Your task to perform on an android device: Search for a custom-made wallet on Etsy Image 0: 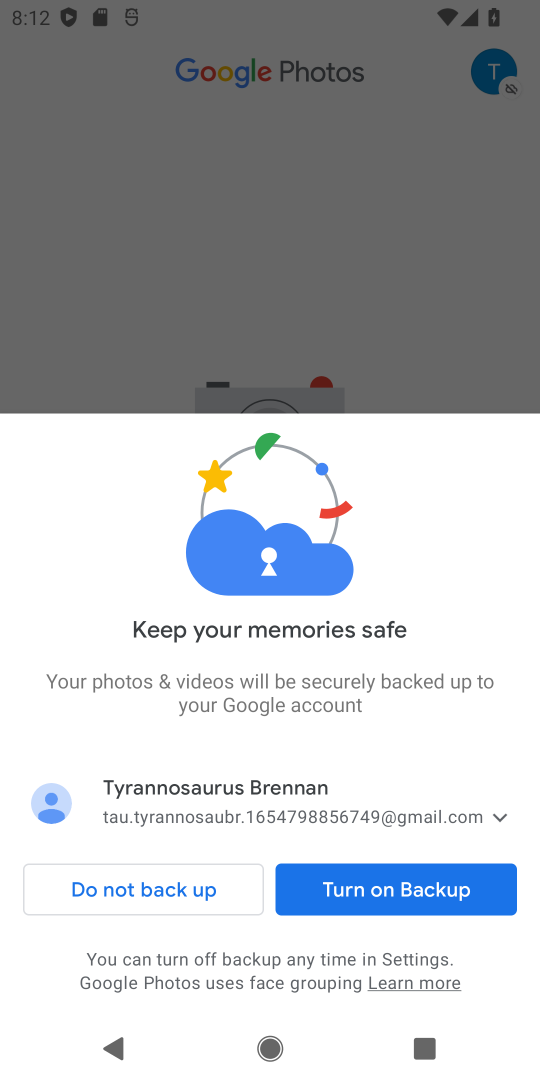
Step 0: press home button
Your task to perform on an android device: Search for a custom-made wallet on Etsy Image 1: 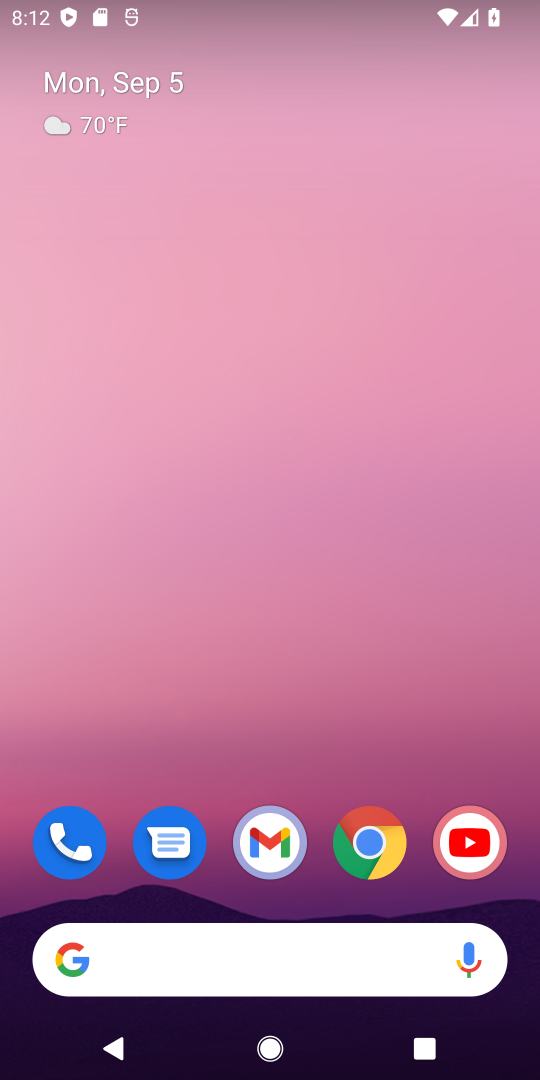
Step 1: click (368, 844)
Your task to perform on an android device: Search for a custom-made wallet on Etsy Image 2: 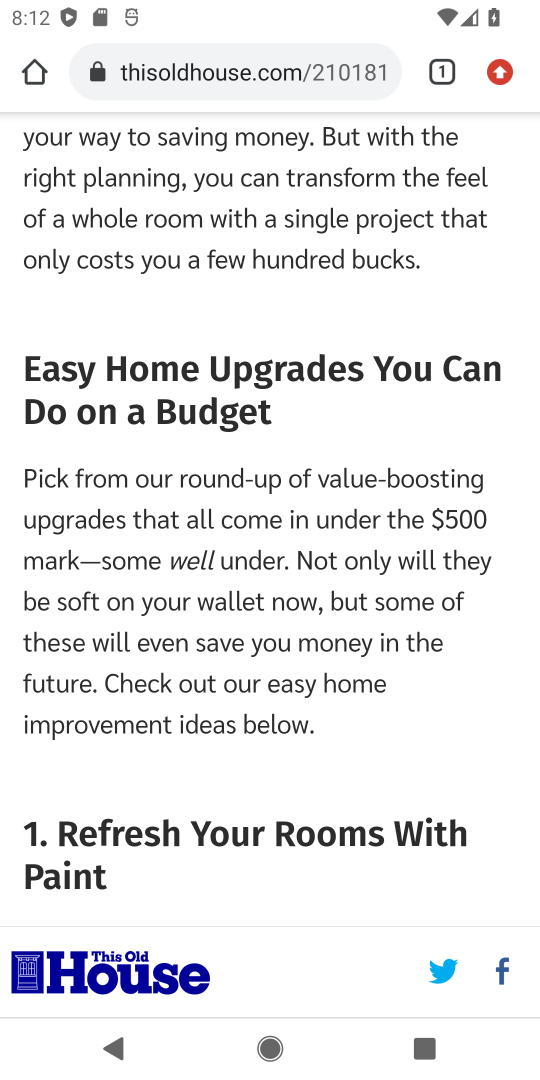
Step 2: click (302, 64)
Your task to perform on an android device: Search for a custom-made wallet on Etsy Image 3: 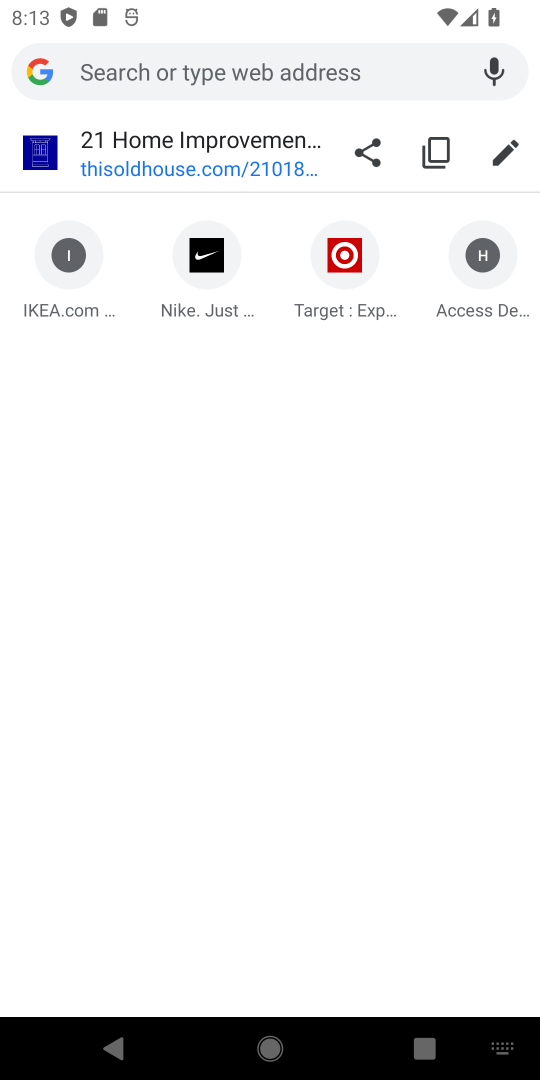
Step 3: type "Etsy"
Your task to perform on an android device: Search for a custom-made wallet on Etsy Image 4: 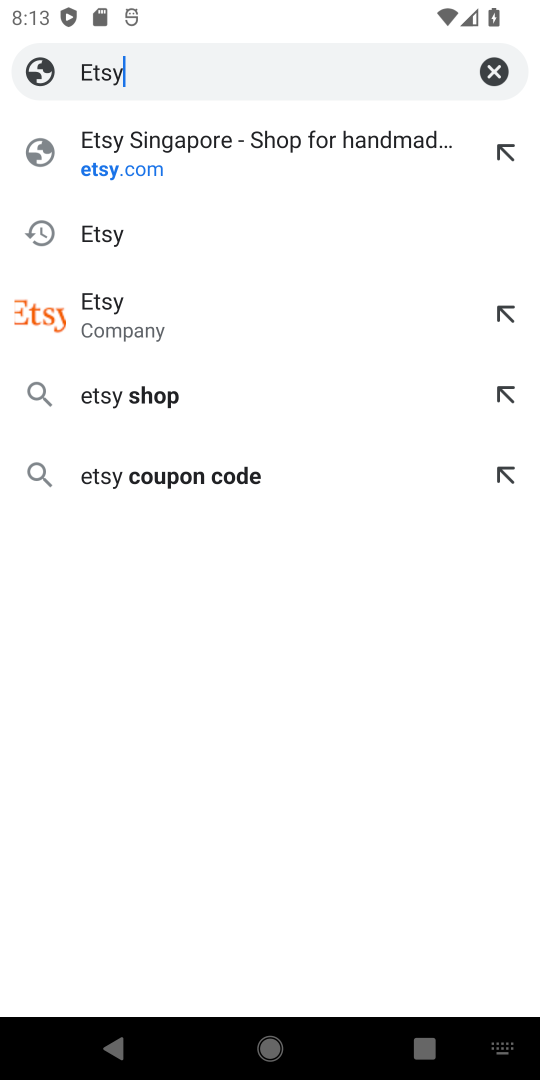
Step 4: click (122, 337)
Your task to perform on an android device: Search for a custom-made wallet on Etsy Image 5: 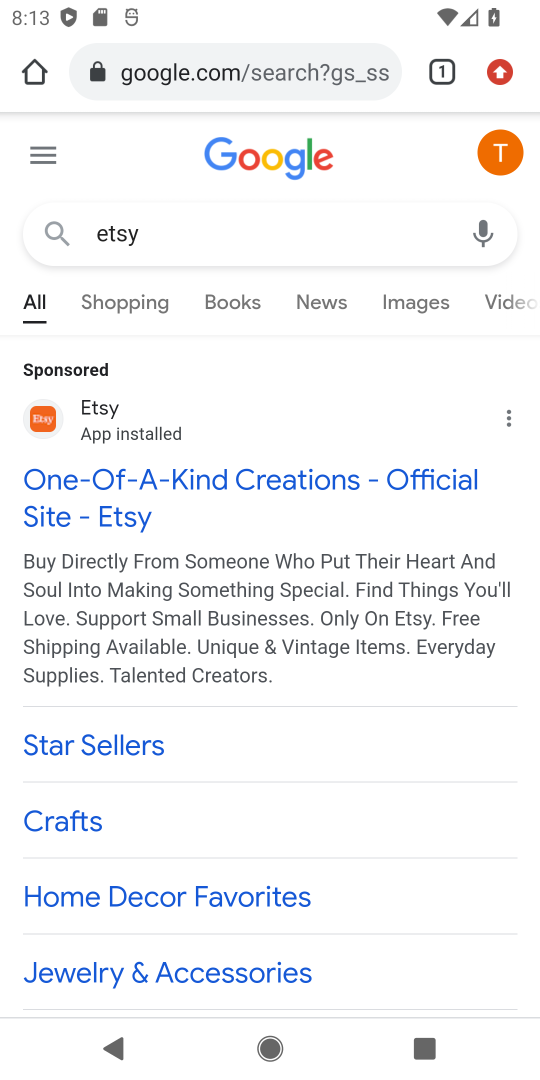
Step 5: drag from (336, 980) to (399, 719)
Your task to perform on an android device: Search for a custom-made wallet on Etsy Image 6: 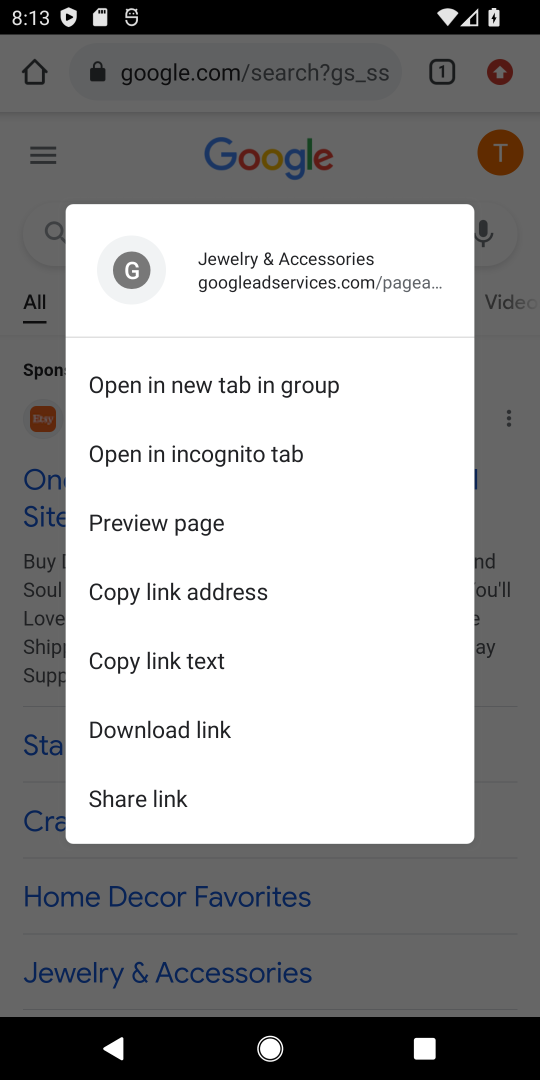
Step 6: click (423, 159)
Your task to perform on an android device: Search for a custom-made wallet on Etsy Image 7: 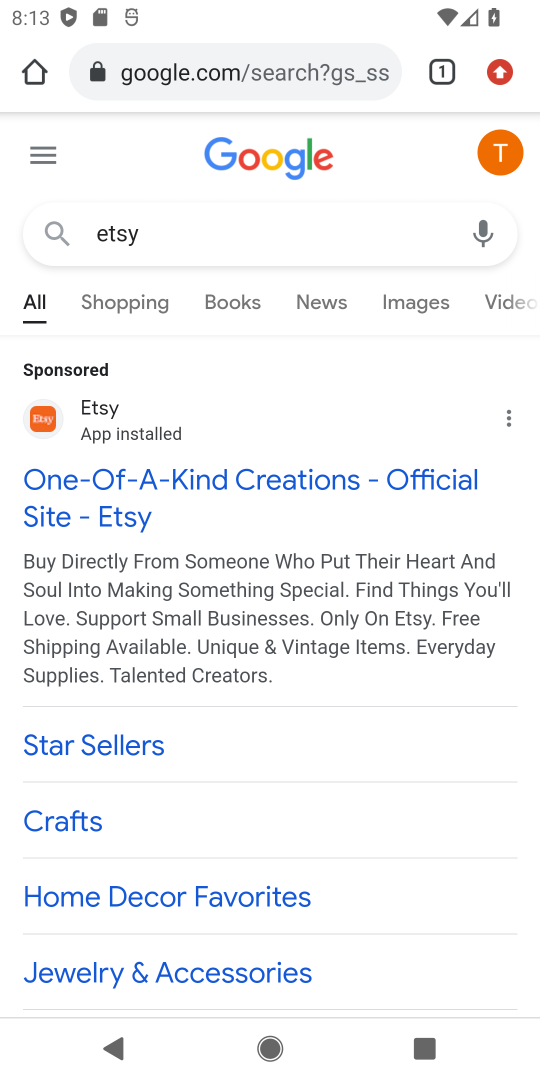
Step 7: drag from (331, 977) to (314, 412)
Your task to perform on an android device: Search for a custom-made wallet on Etsy Image 8: 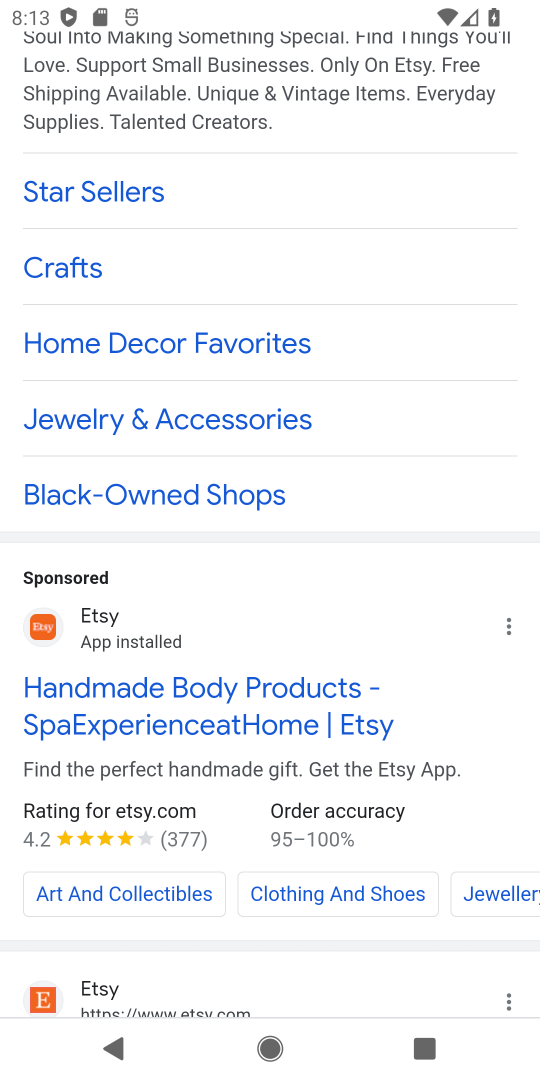
Step 8: drag from (236, 819) to (347, 637)
Your task to perform on an android device: Search for a custom-made wallet on Etsy Image 9: 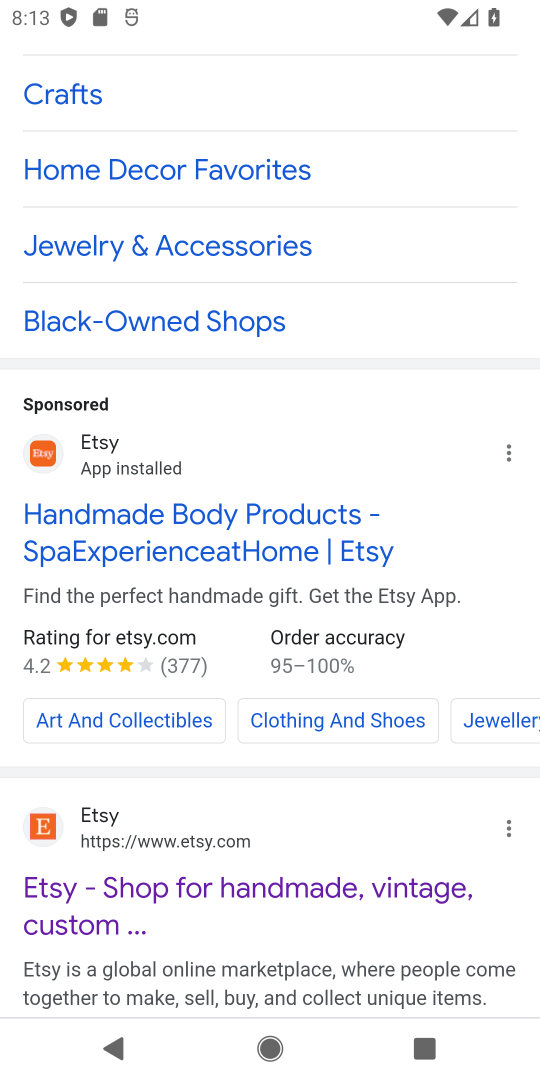
Step 9: click (288, 898)
Your task to perform on an android device: Search for a custom-made wallet on Etsy Image 10: 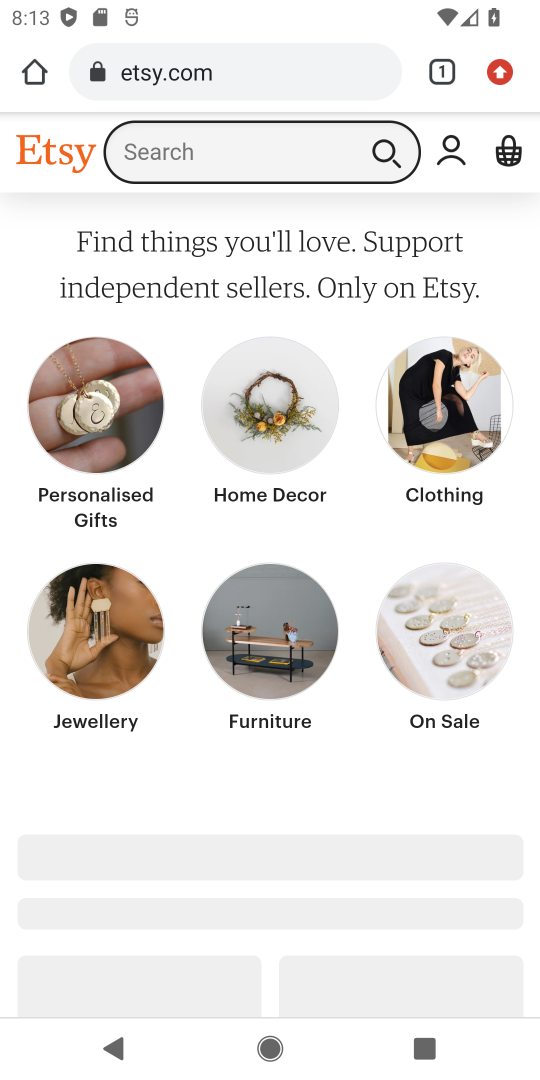
Step 10: click (226, 152)
Your task to perform on an android device: Search for a custom-made wallet on Etsy Image 11: 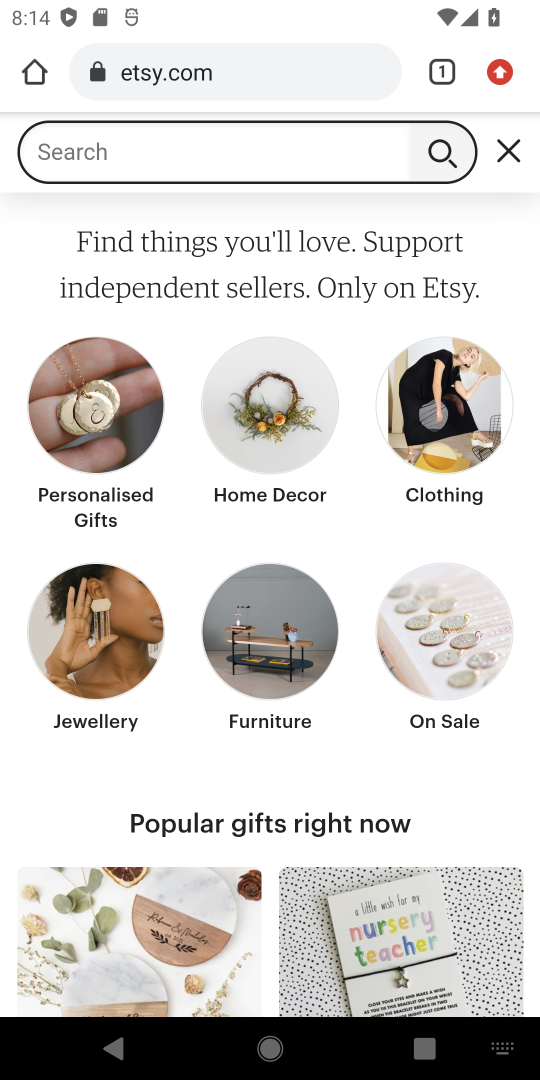
Step 11: click (253, 155)
Your task to perform on an android device: Search for a custom-made wallet on Etsy Image 12: 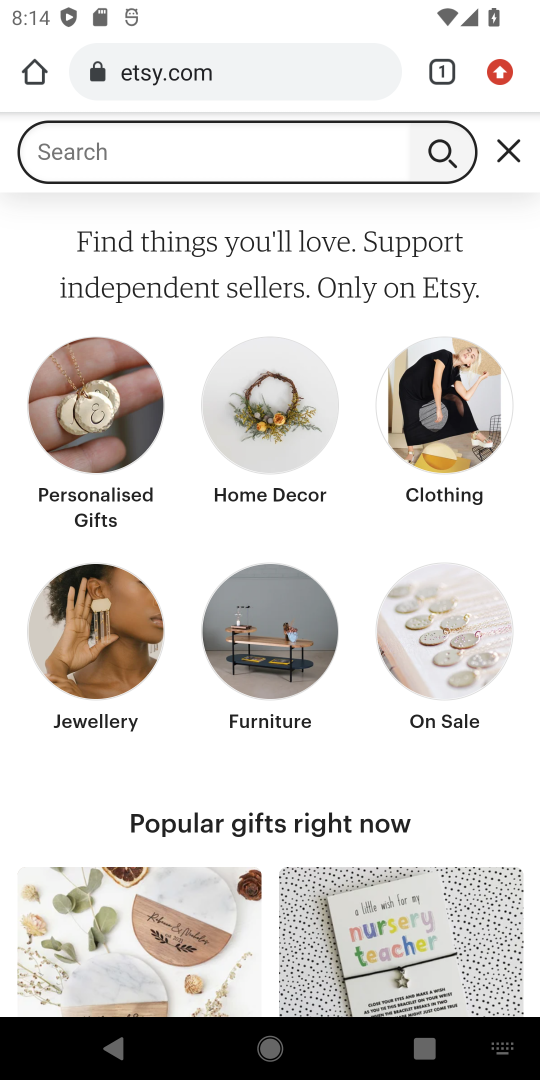
Step 12: type "custom-made wallet"
Your task to perform on an android device: Search for a custom-made wallet on Etsy Image 13: 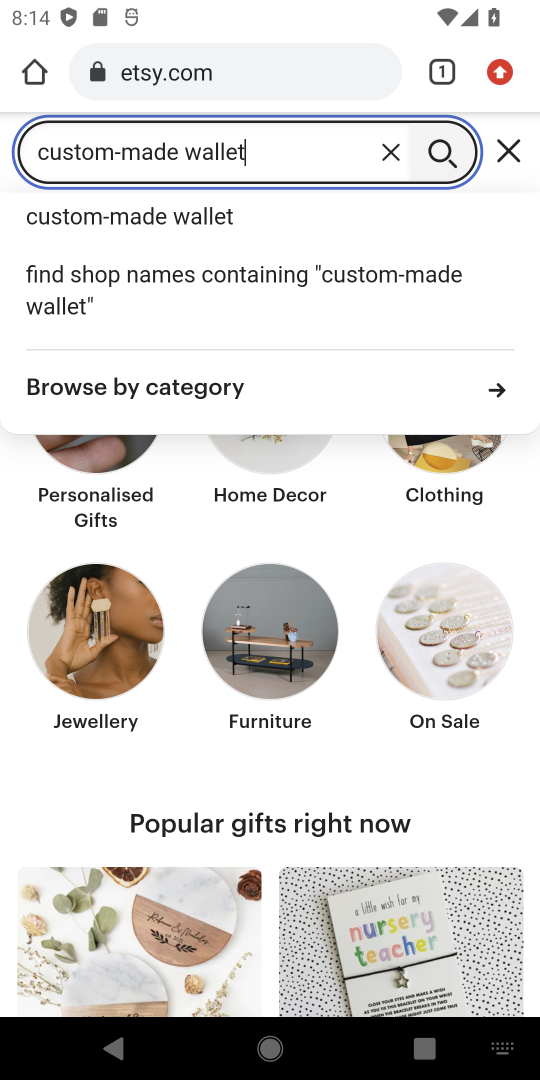
Step 13: click (443, 163)
Your task to perform on an android device: Search for a custom-made wallet on Etsy Image 14: 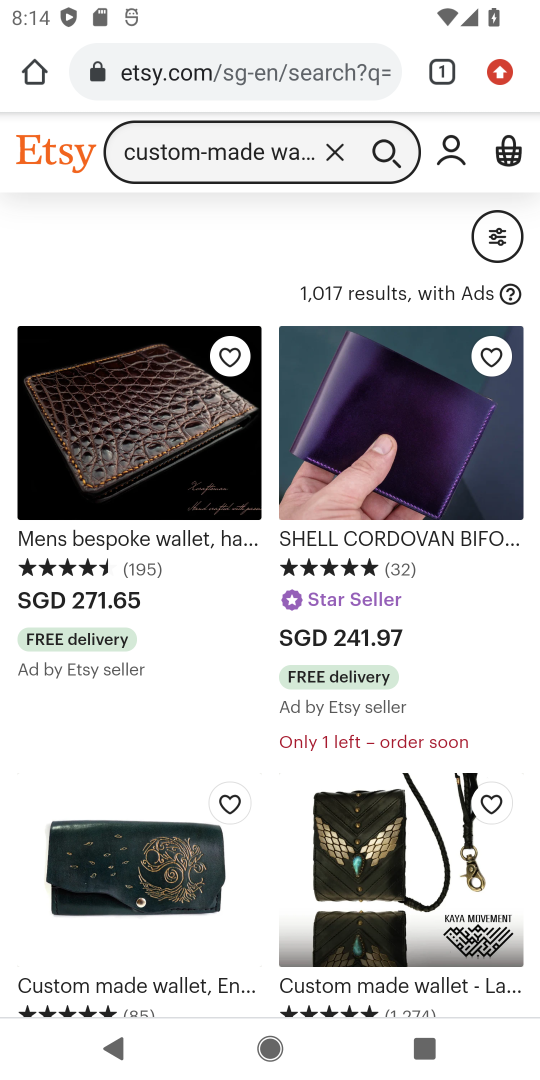
Step 14: task complete